Your task to perform on an android device: turn smart compose on in the gmail app Image 0: 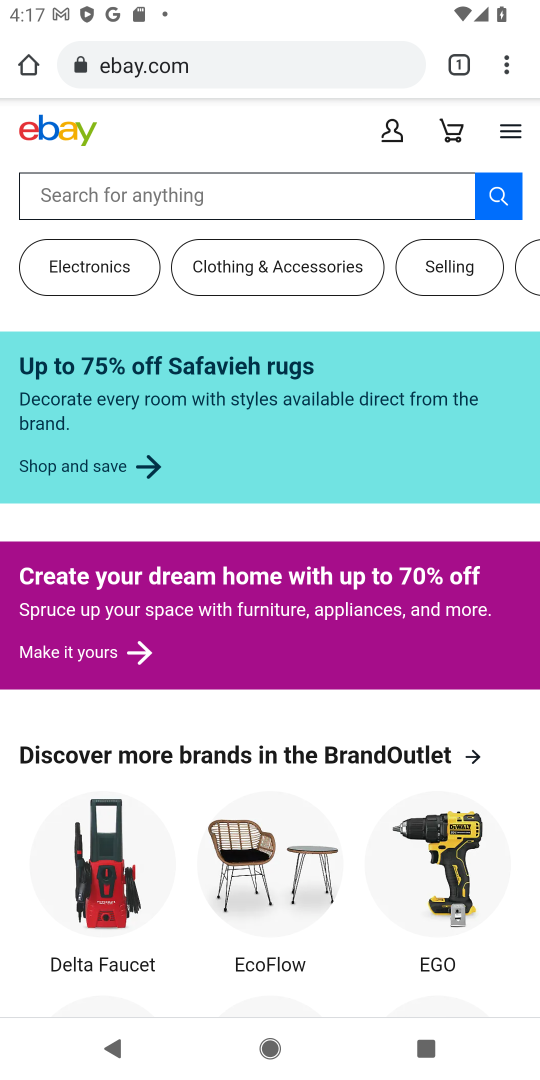
Step 0: press home button
Your task to perform on an android device: turn smart compose on in the gmail app Image 1: 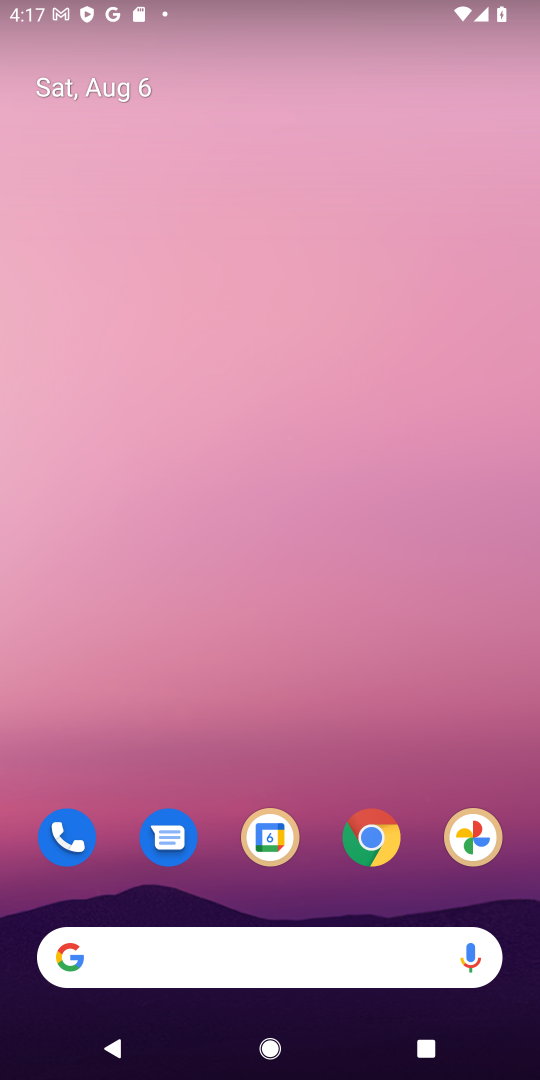
Step 1: drag from (419, 900) to (404, 151)
Your task to perform on an android device: turn smart compose on in the gmail app Image 2: 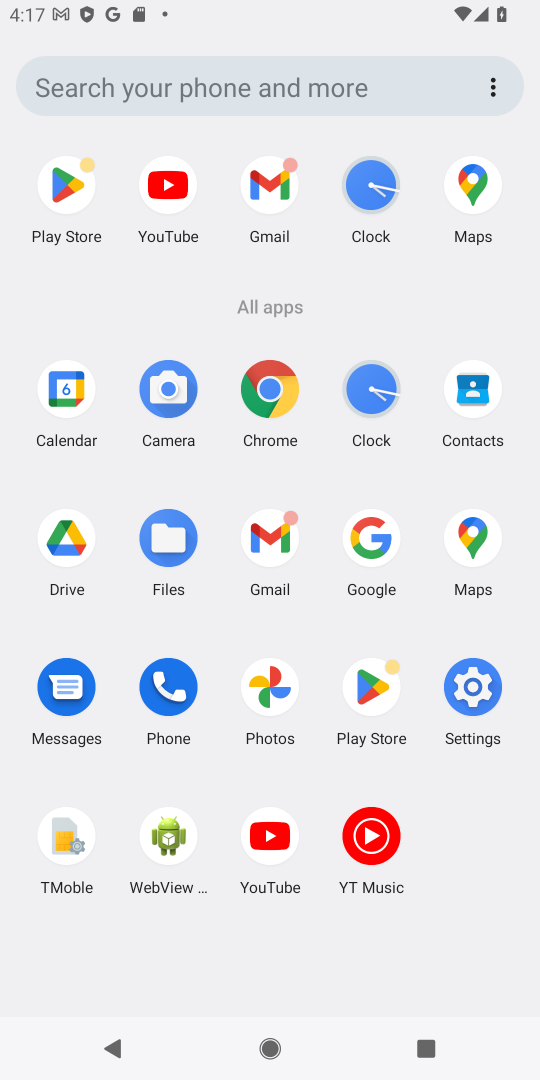
Step 2: click (268, 540)
Your task to perform on an android device: turn smart compose on in the gmail app Image 3: 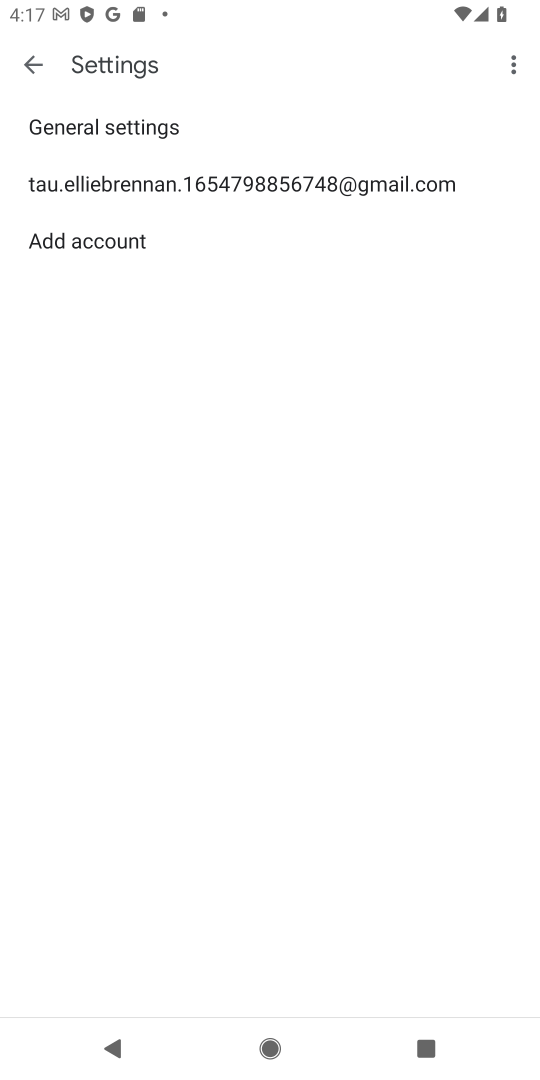
Step 3: click (190, 190)
Your task to perform on an android device: turn smart compose on in the gmail app Image 4: 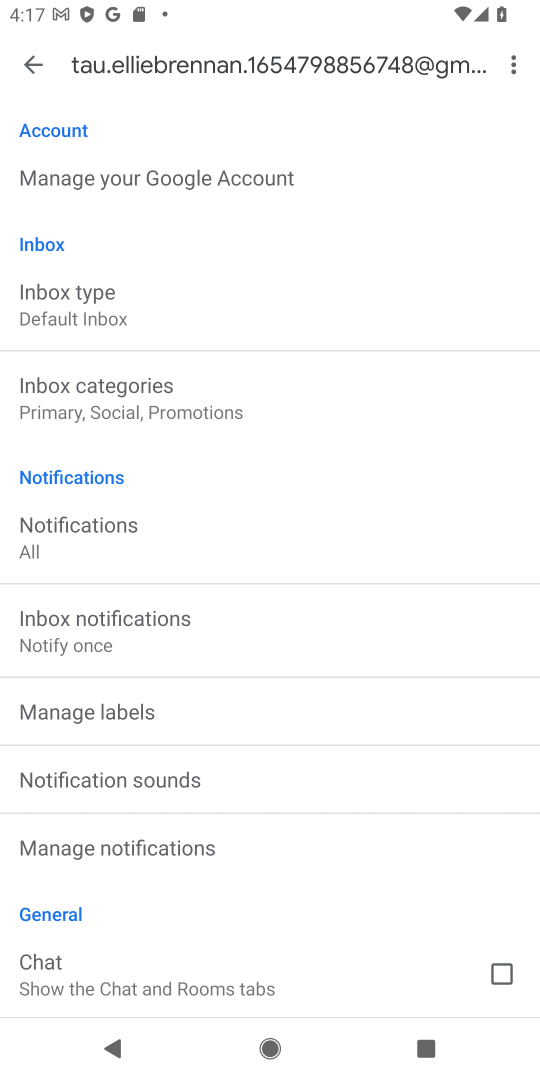
Step 4: task complete